Your task to perform on an android device: toggle translation in the chrome app Image 0: 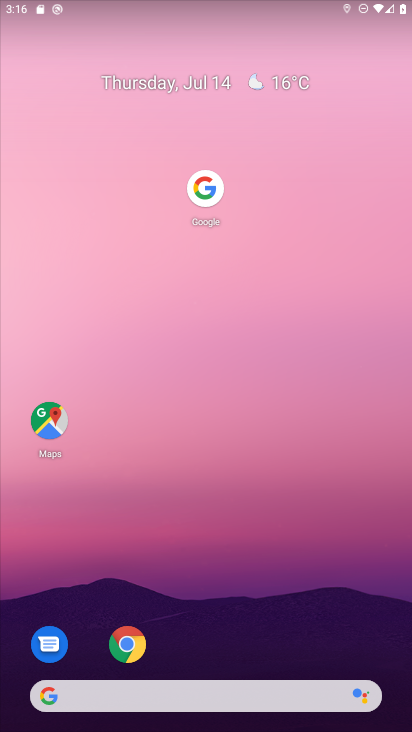
Step 0: click (145, 631)
Your task to perform on an android device: toggle translation in the chrome app Image 1: 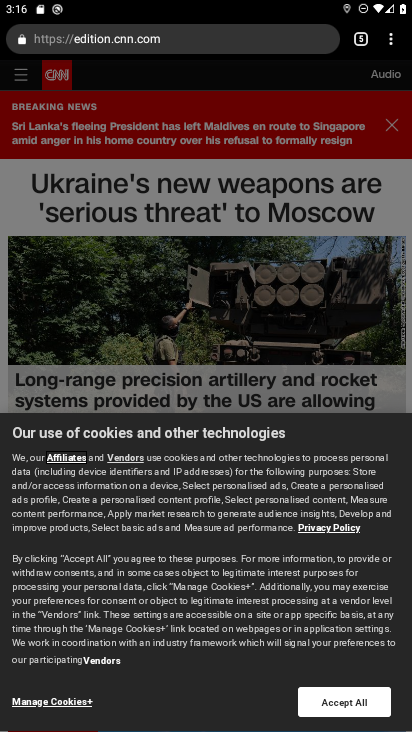
Step 1: click (391, 42)
Your task to perform on an android device: toggle translation in the chrome app Image 2: 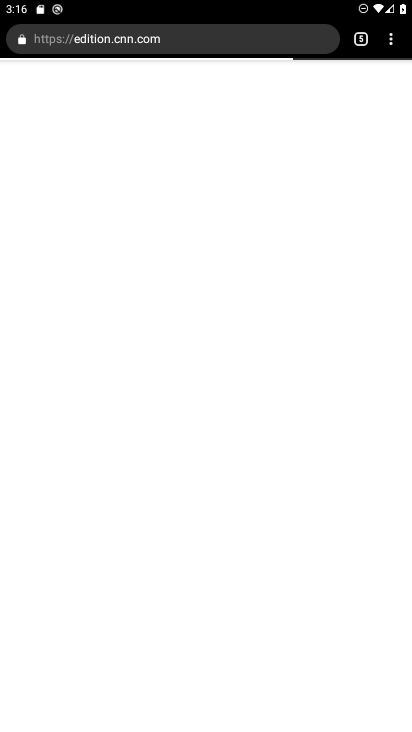
Step 2: click (388, 44)
Your task to perform on an android device: toggle translation in the chrome app Image 3: 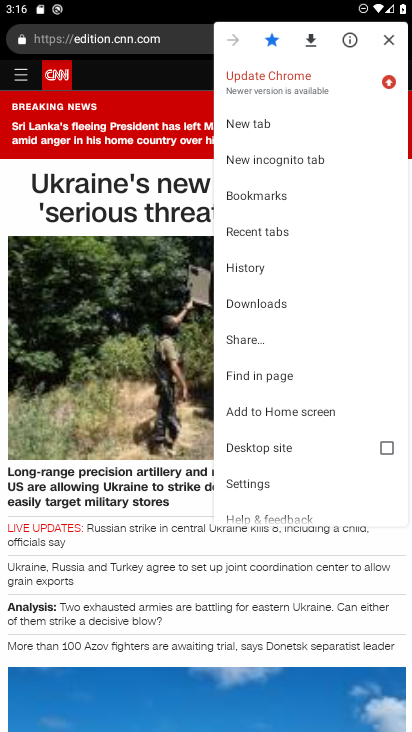
Step 3: click (255, 478)
Your task to perform on an android device: toggle translation in the chrome app Image 4: 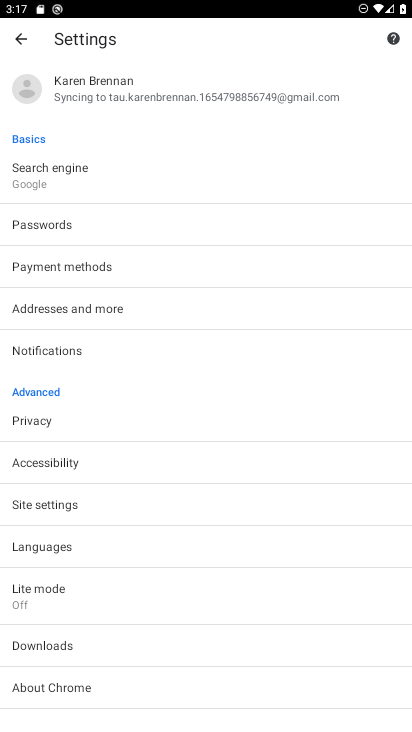
Step 4: click (77, 551)
Your task to perform on an android device: toggle translation in the chrome app Image 5: 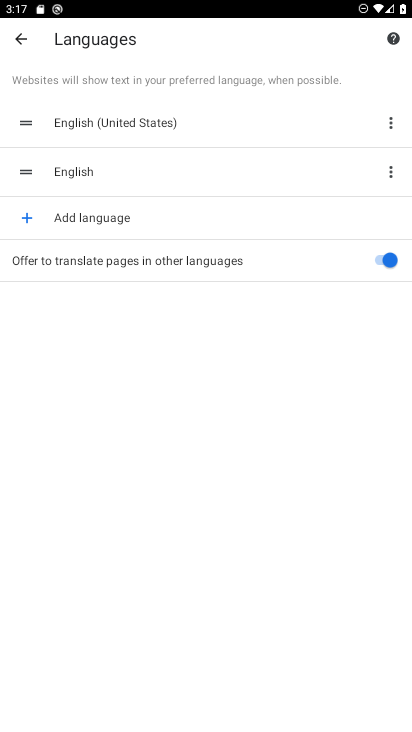
Step 5: click (378, 256)
Your task to perform on an android device: toggle translation in the chrome app Image 6: 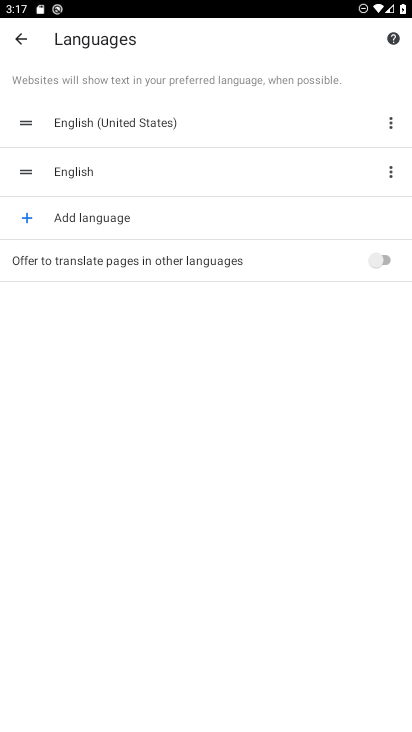
Step 6: task complete